Your task to perform on an android device: add a label to a message in the gmail app Image 0: 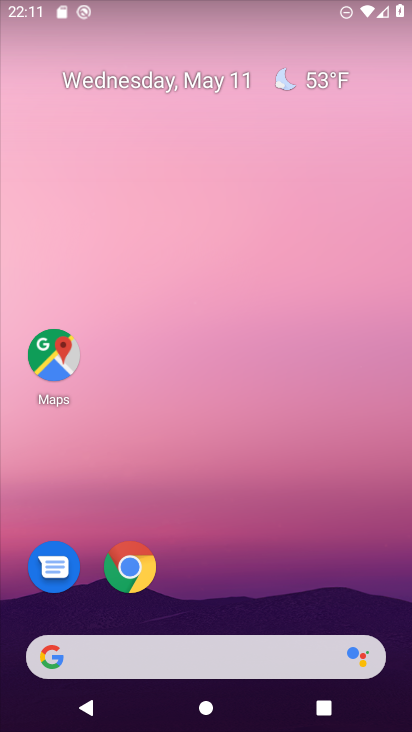
Step 0: drag from (265, 597) to (263, 41)
Your task to perform on an android device: add a label to a message in the gmail app Image 1: 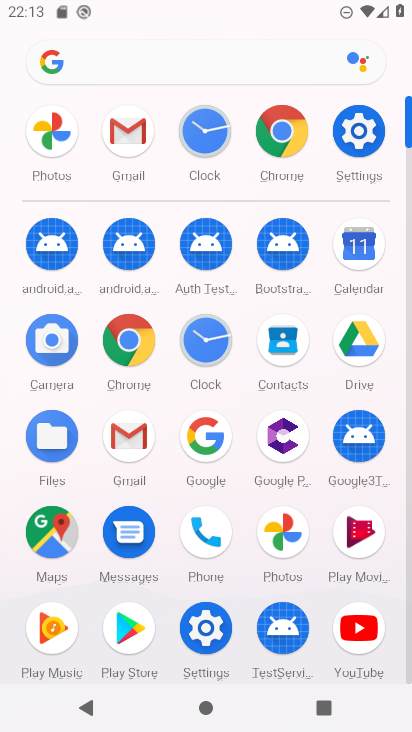
Step 1: click (129, 133)
Your task to perform on an android device: add a label to a message in the gmail app Image 2: 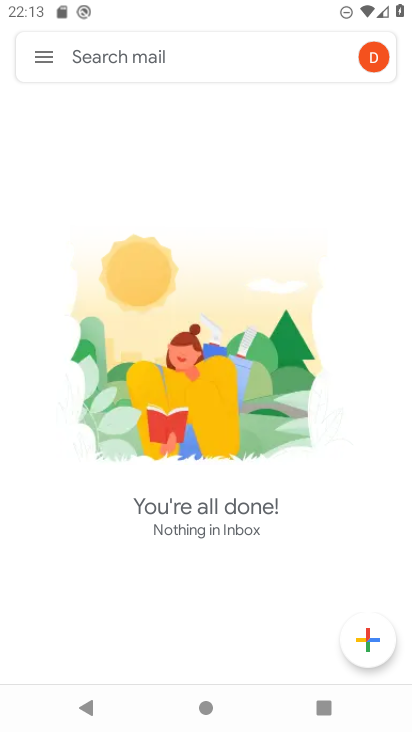
Step 2: task complete